Your task to perform on an android device: Open the calendar app, open the side menu, and click the "Day" option Image 0: 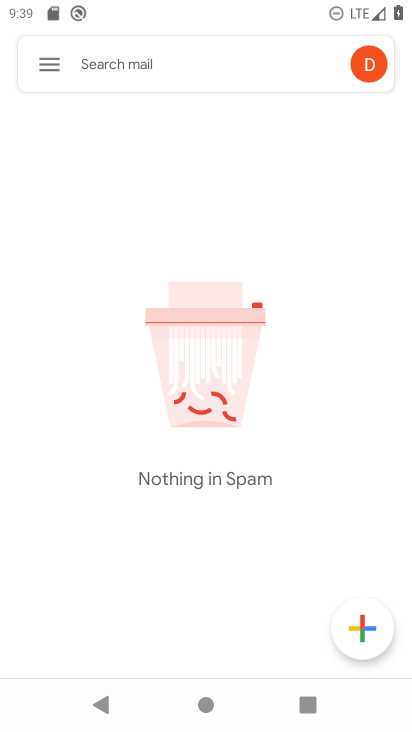
Step 0: press home button
Your task to perform on an android device: Open the calendar app, open the side menu, and click the "Day" option Image 1: 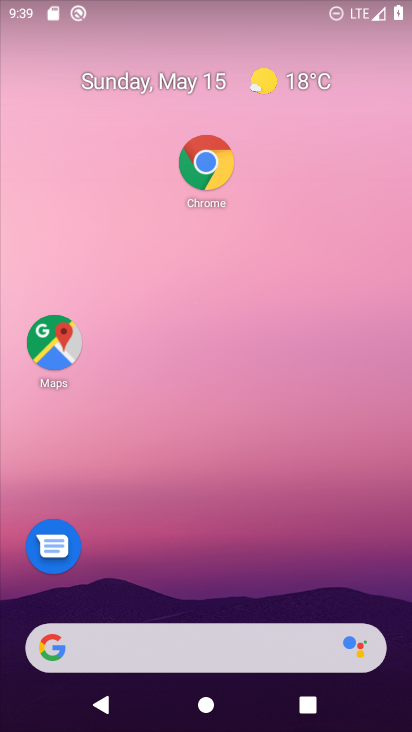
Step 1: drag from (299, 532) to (335, 216)
Your task to perform on an android device: Open the calendar app, open the side menu, and click the "Day" option Image 2: 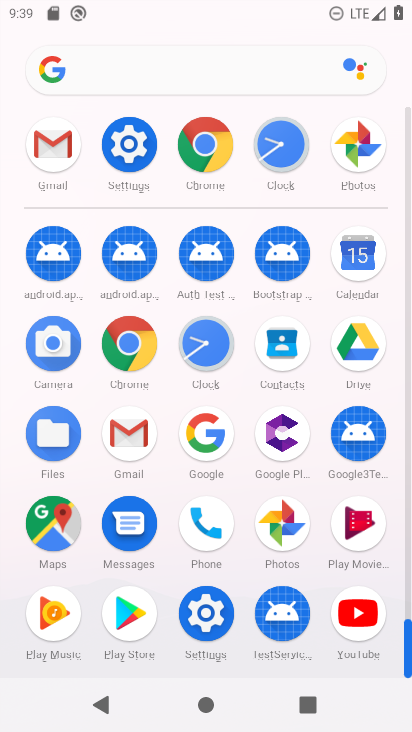
Step 2: click (353, 250)
Your task to perform on an android device: Open the calendar app, open the side menu, and click the "Day" option Image 3: 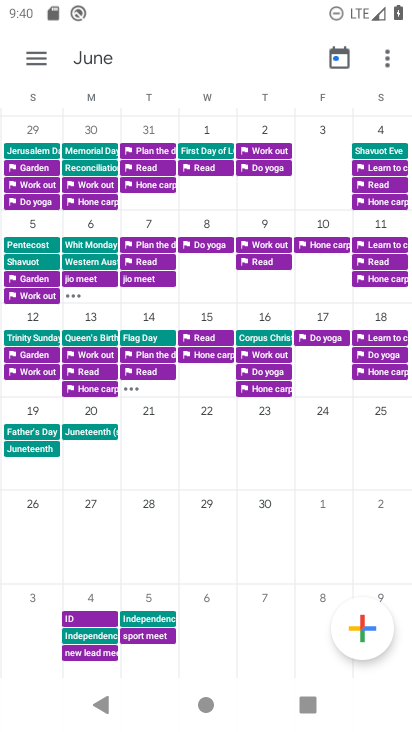
Step 3: click (31, 55)
Your task to perform on an android device: Open the calendar app, open the side menu, and click the "Day" option Image 4: 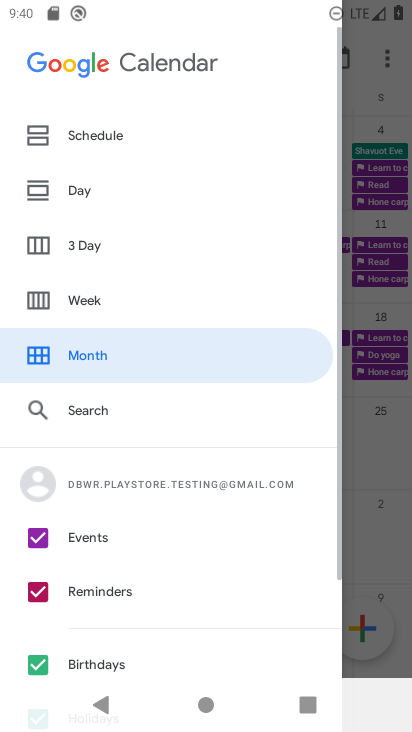
Step 4: click (91, 187)
Your task to perform on an android device: Open the calendar app, open the side menu, and click the "Day" option Image 5: 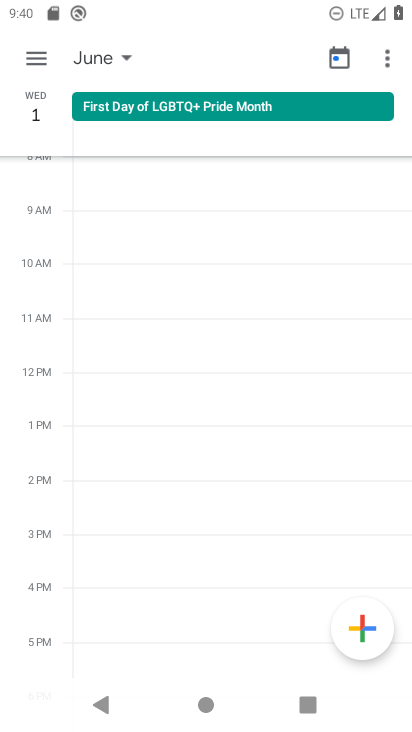
Step 5: click (31, 61)
Your task to perform on an android device: Open the calendar app, open the side menu, and click the "Day" option Image 6: 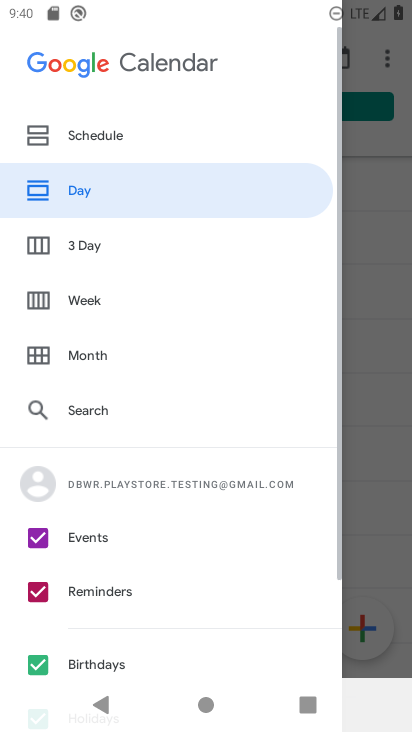
Step 6: click (96, 194)
Your task to perform on an android device: Open the calendar app, open the side menu, and click the "Day" option Image 7: 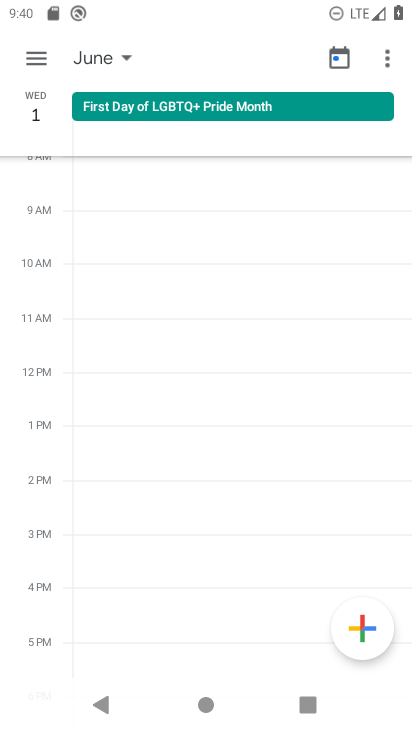
Step 7: click (135, 191)
Your task to perform on an android device: Open the calendar app, open the side menu, and click the "Day" option Image 8: 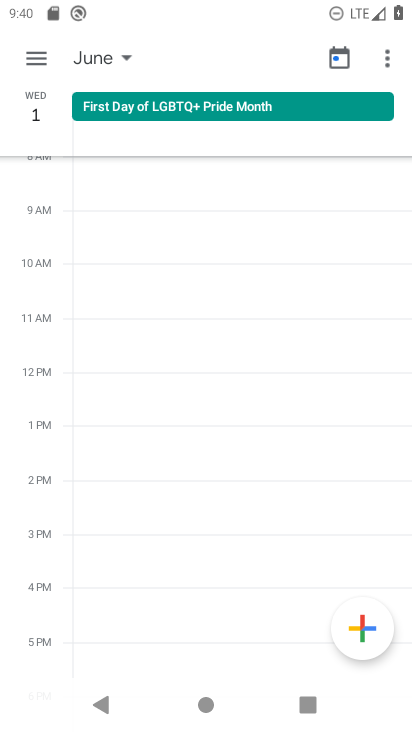
Step 8: task complete